Your task to perform on an android device: change timer sound Image 0: 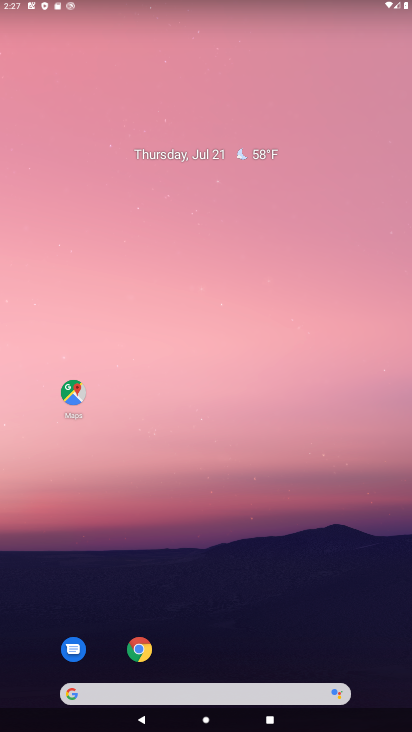
Step 0: drag from (223, 650) to (247, 12)
Your task to perform on an android device: change timer sound Image 1: 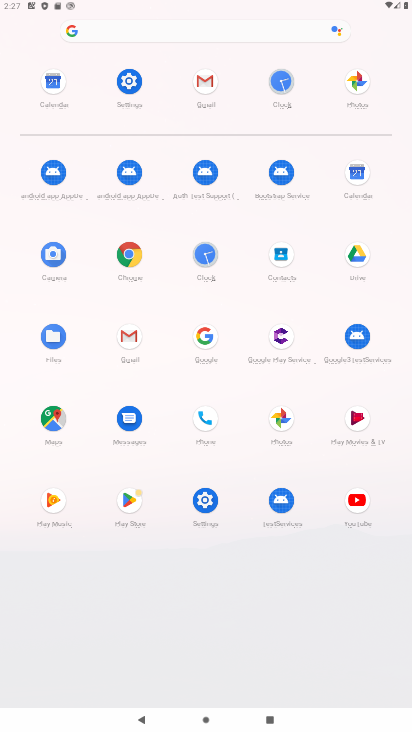
Step 1: click (284, 105)
Your task to perform on an android device: change timer sound Image 2: 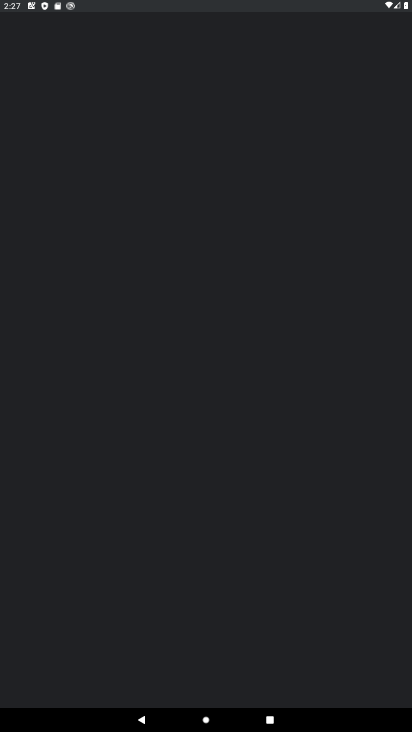
Step 2: task complete